Your task to perform on an android device: turn notification dots off Image 0: 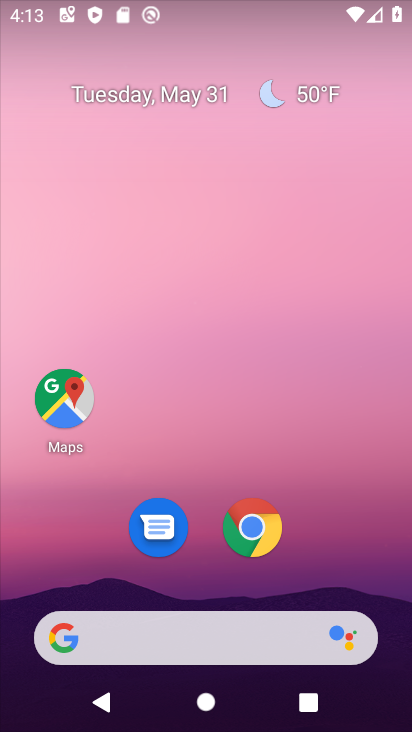
Step 0: drag from (392, 591) to (304, 1)
Your task to perform on an android device: turn notification dots off Image 1: 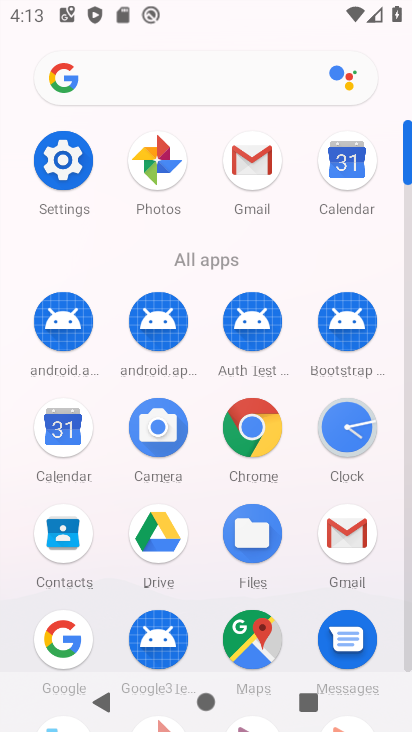
Step 1: click (59, 174)
Your task to perform on an android device: turn notification dots off Image 2: 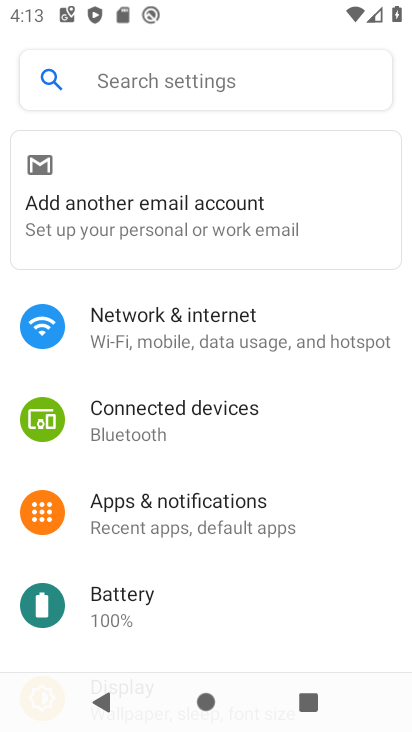
Step 2: click (166, 502)
Your task to perform on an android device: turn notification dots off Image 3: 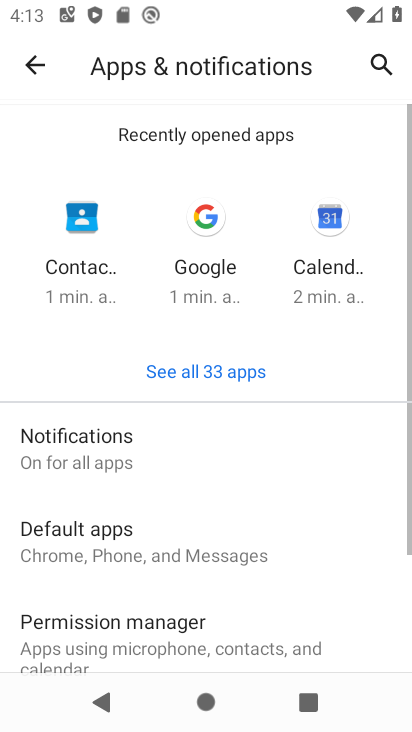
Step 3: click (202, 451)
Your task to perform on an android device: turn notification dots off Image 4: 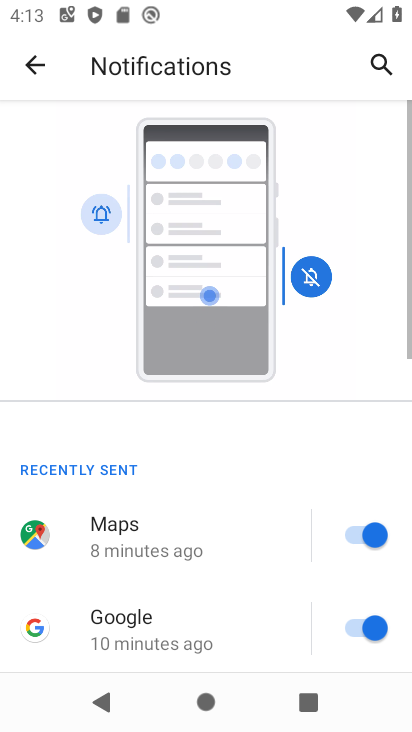
Step 4: drag from (235, 622) to (237, 155)
Your task to perform on an android device: turn notification dots off Image 5: 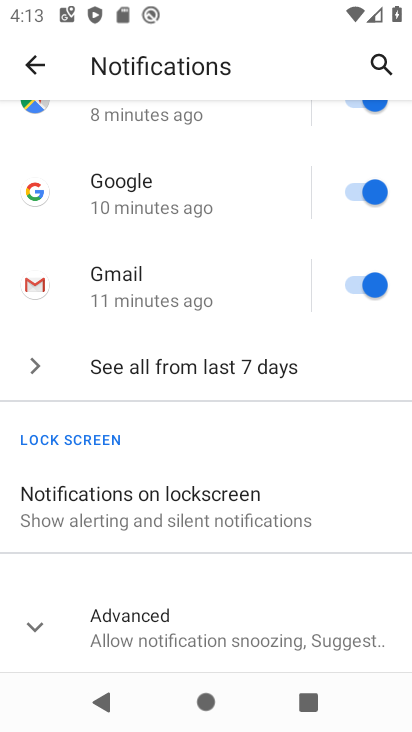
Step 5: click (177, 622)
Your task to perform on an android device: turn notification dots off Image 6: 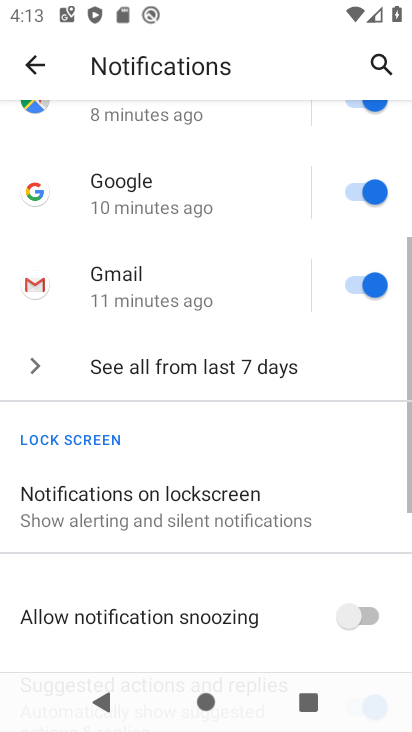
Step 6: drag from (177, 622) to (167, 247)
Your task to perform on an android device: turn notification dots off Image 7: 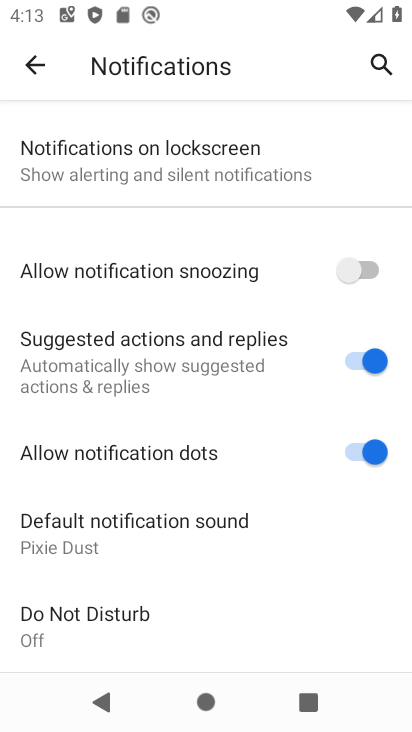
Step 7: click (360, 451)
Your task to perform on an android device: turn notification dots off Image 8: 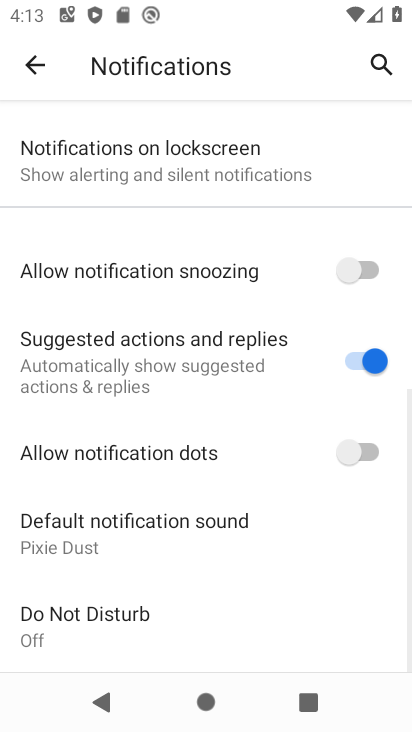
Step 8: task complete